Your task to perform on an android device: What's the weather today? Image 0: 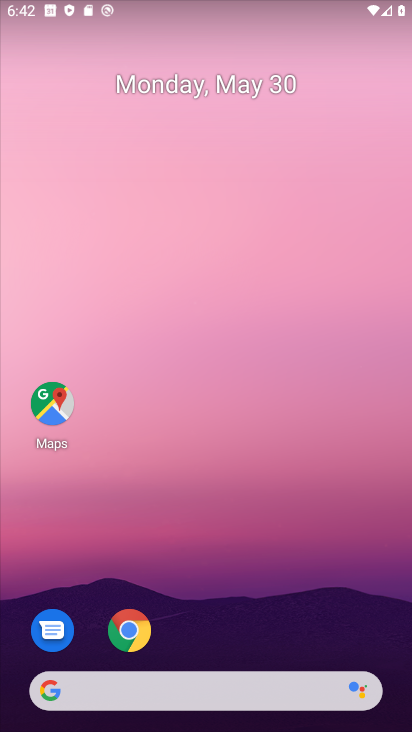
Step 0: drag from (322, 628) to (332, 77)
Your task to perform on an android device: What's the weather today? Image 1: 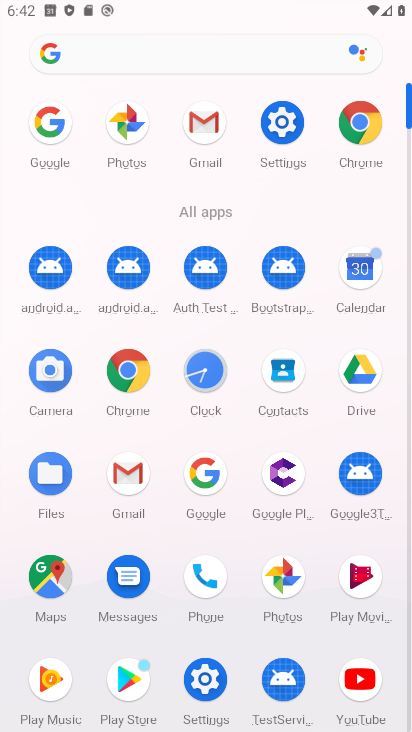
Step 1: click (206, 483)
Your task to perform on an android device: What's the weather today? Image 2: 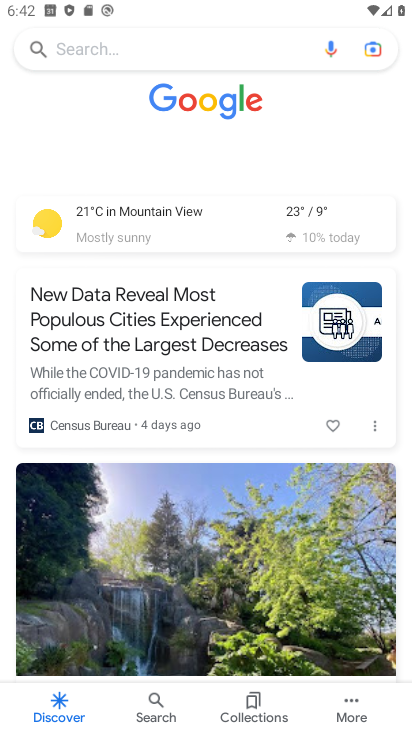
Step 2: click (139, 46)
Your task to perform on an android device: What's the weather today? Image 3: 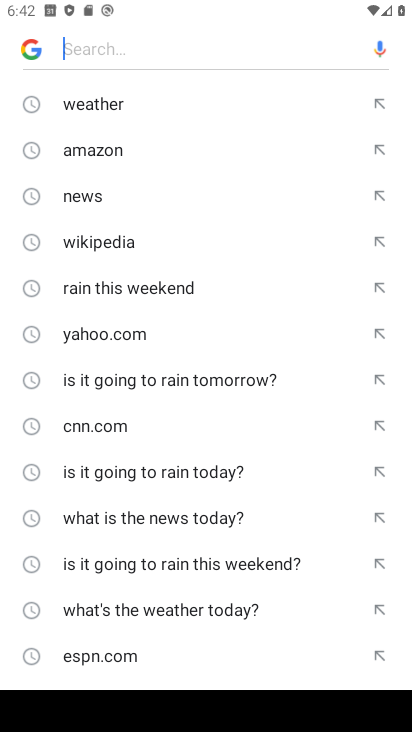
Step 3: click (211, 615)
Your task to perform on an android device: What's the weather today? Image 4: 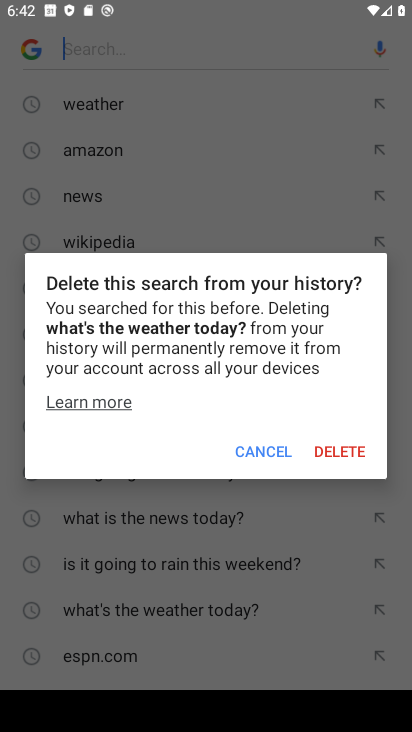
Step 4: click (258, 454)
Your task to perform on an android device: What's the weather today? Image 5: 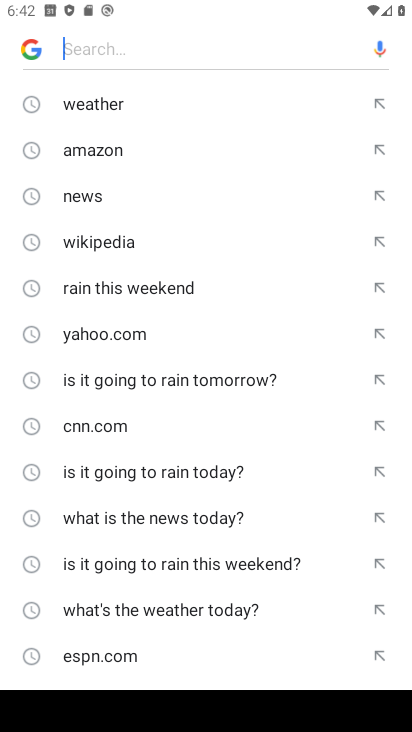
Step 5: click (201, 610)
Your task to perform on an android device: What's the weather today? Image 6: 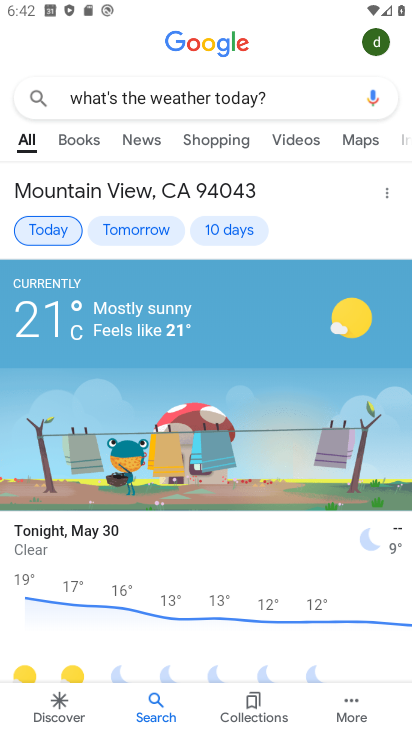
Step 6: task complete